Your task to perform on an android device: turn on showing notifications on the lock screen Image 0: 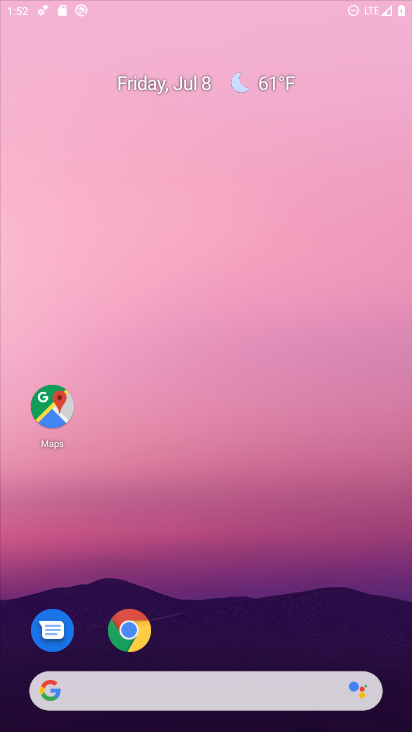
Step 0: drag from (349, 501) to (316, 18)
Your task to perform on an android device: turn on showing notifications on the lock screen Image 1: 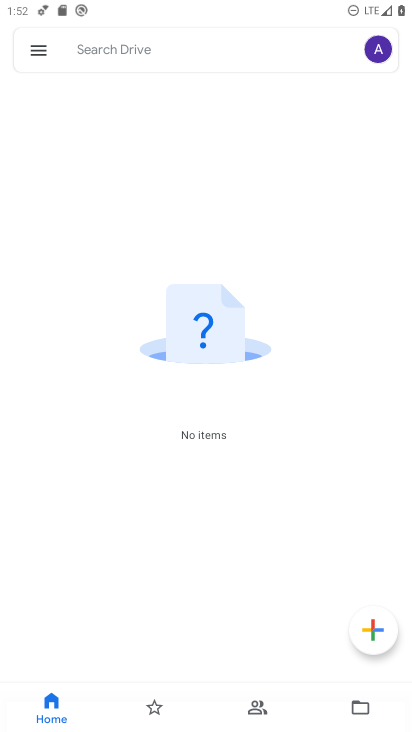
Step 1: press home button
Your task to perform on an android device: turn on showing notifications on the lock screen Image 2: 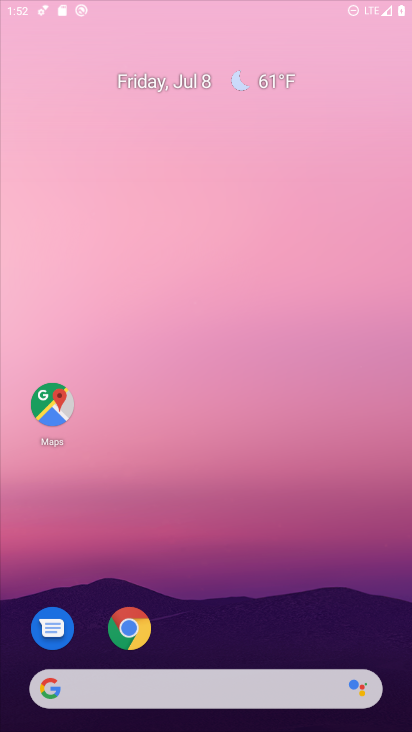
Step 2: drag from (398, 658) to (357, 7)
Your task to perform on an android device: turn on showing notifications on the lock screen Image 3: 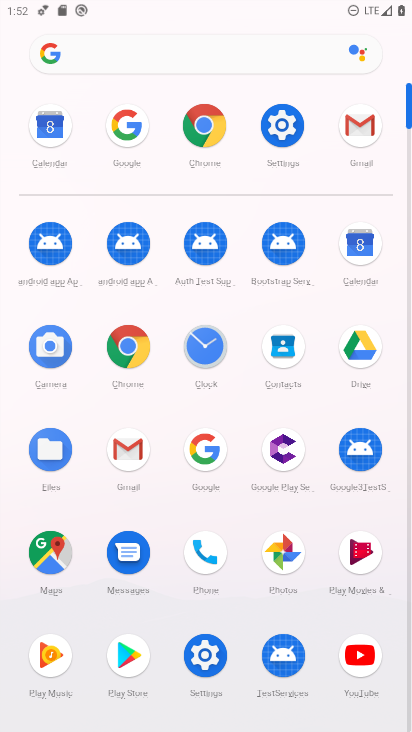
Step 3: click (295, 124)
Your task to perform on an android device: turn on showing notifications on the lock screen Image 4: 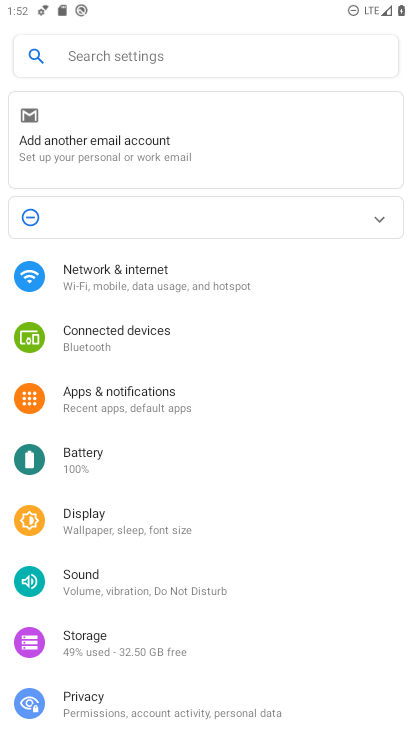
Step 4: click (108, 399)
Your task to perform on an android device: turn on showing notifications on the lock screen Image 5: 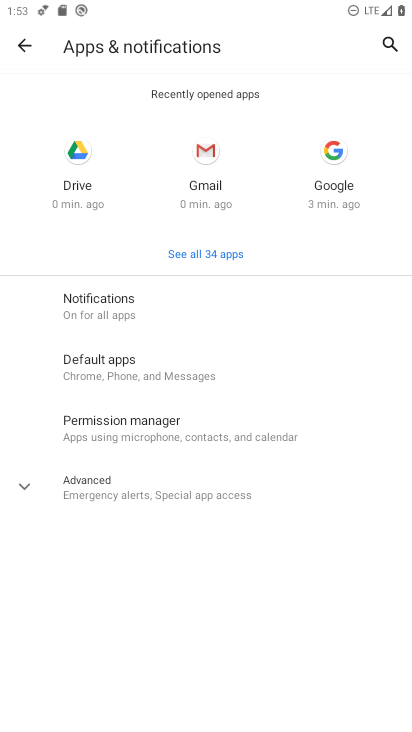
Step 5: click (112, 324)
Your task to perform on an android device: turn on showing notifications on the lock screen Image 6: 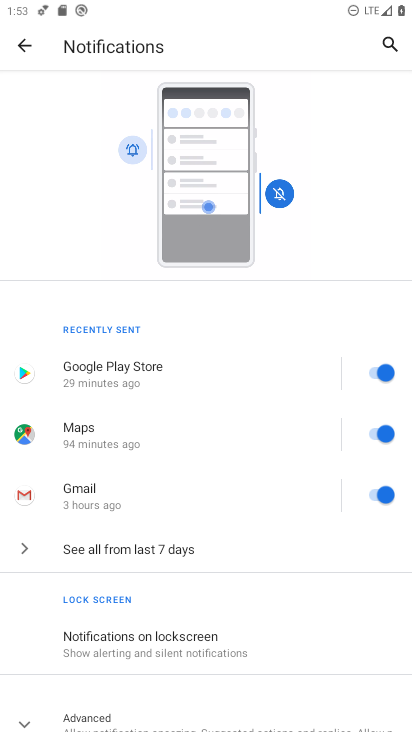
Step 6: click (235, 652)
Your task to perform on an android device: turn on showing notifications on the lock screen Image 7: 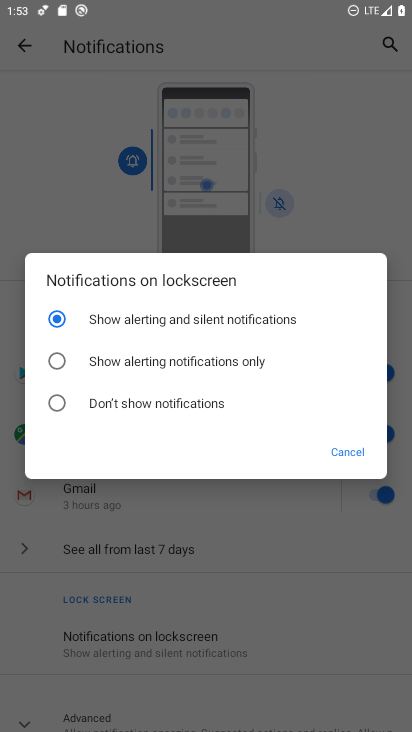
Step 7: task complete